Your task to perform on an android device: open chrome and create a bookmark for the current page Image 0: 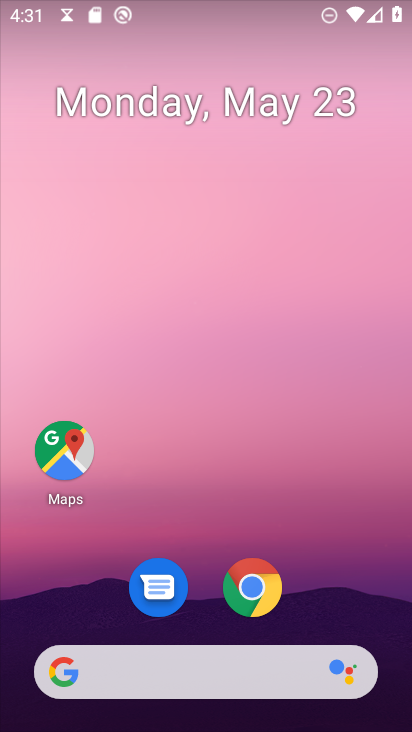
Step 0: click (260, 573)
Your task to perform on an android device: open chrome and create a bookmark for the current page Image 1: 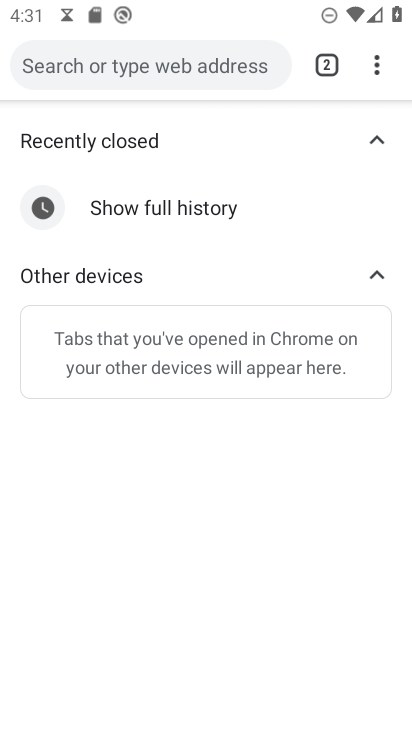
Step 1: click (381, 66)
Your task to perform on an android device: open chrome and create a bookmark for the current page Image 2: 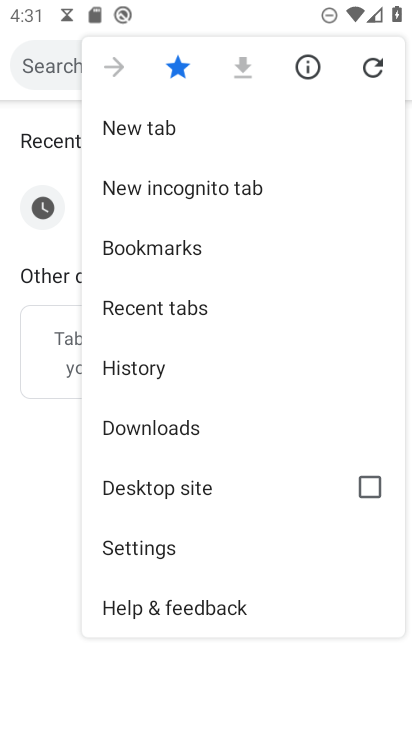
Step 2: task complete